Your task to perform on an android device: Search for "apple airpods pro" on target, select the first entry, add it to the cart, then select checkout. Image 0: 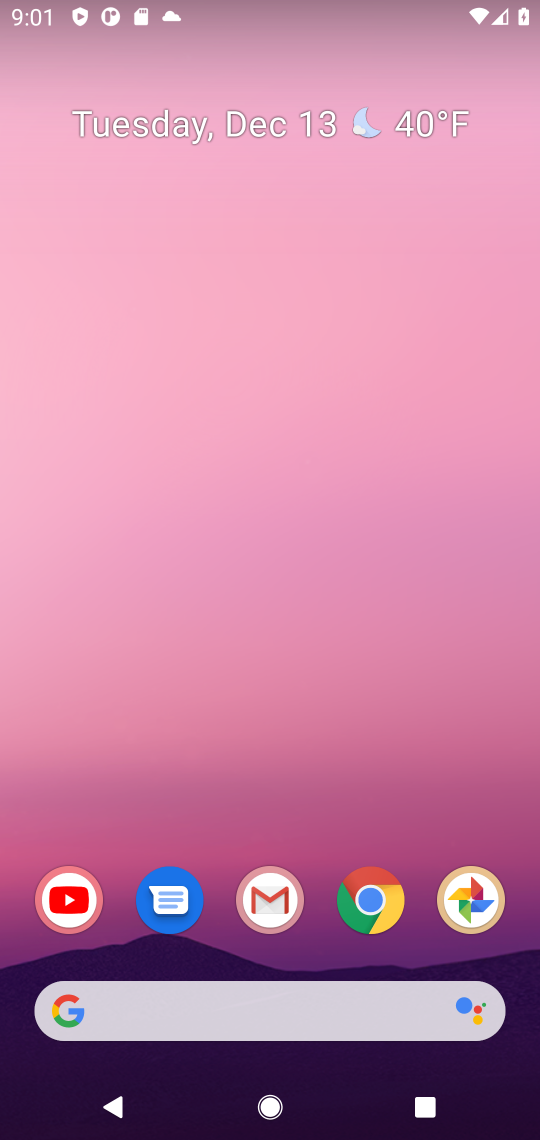
Step 0: click (381, 897)
Your task to perform on an android device: Search for "apple airpods pro" on target, select the first entry, add it to the cart, then select checkout. Image 1: 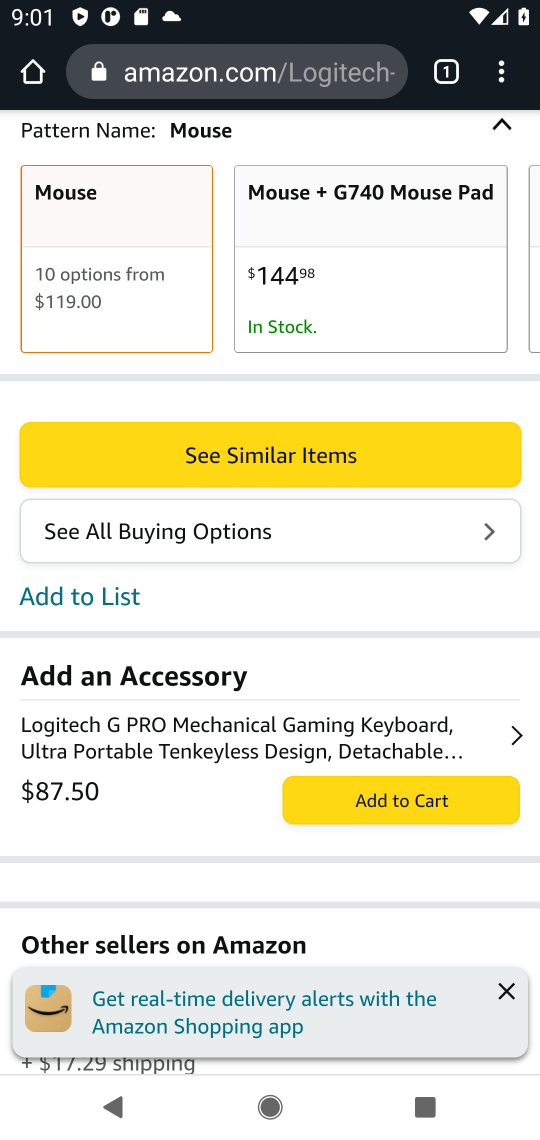
Step 1: click (285, 75)
Your task to perform on an android device: Search for "apple airpods pro" on target, select the first entry, add it to the cart, then select checkout. Image 2: 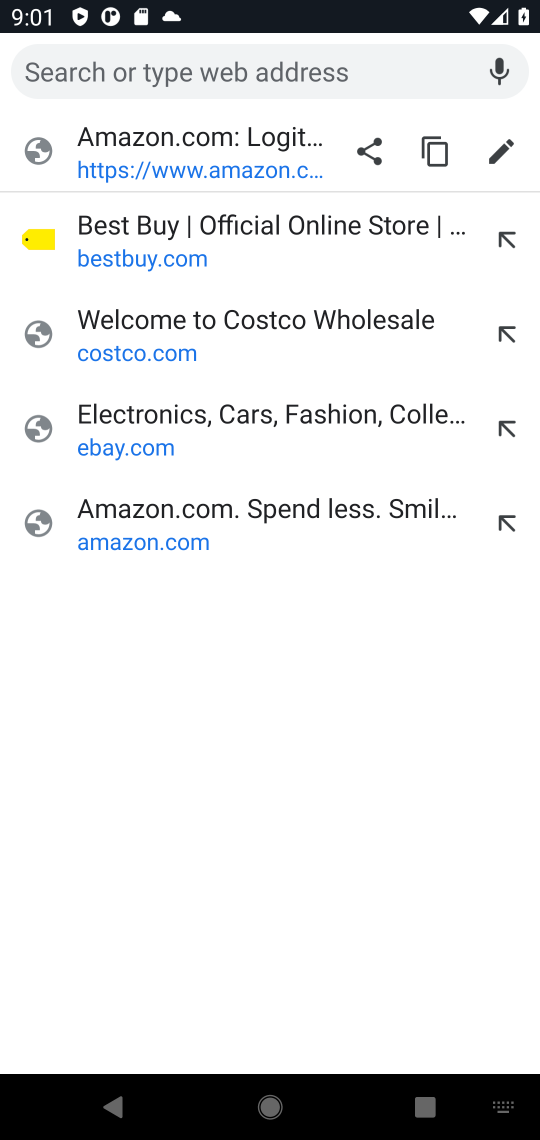
Step 2: type "TARGET"
Your task to perform on an android device: Search for "apple airpods pro" on target, select the first entry, add it to the cart, then select checkout. Image 3: 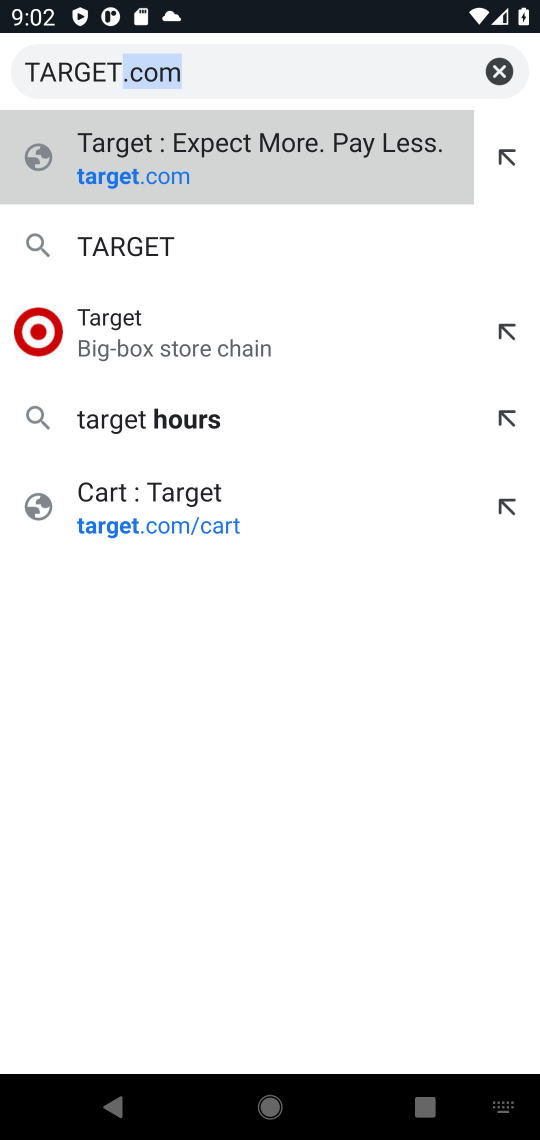
Step 3: click (142, 166)
Your task to perform on an android device: Search for "apple airpods pro" on target, select the first entry, add it to the cart, then select checkout. Image 4: 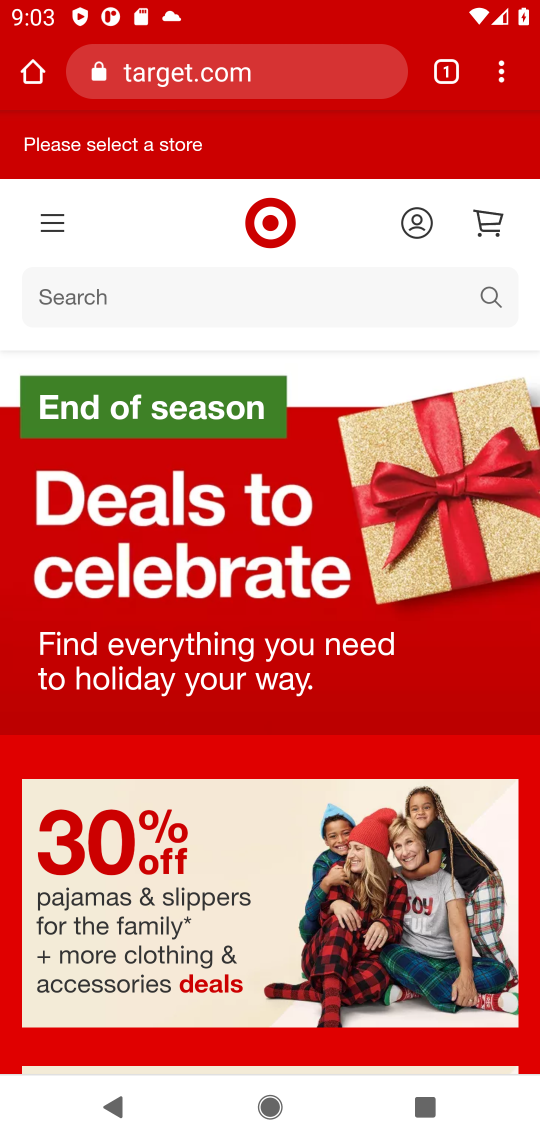
Step 4: click (249, 281)
Your task to perform on an android device: Search for "apple airpods pro" on target, select the first entry, add it to the cart, then select checkout. Image 5: 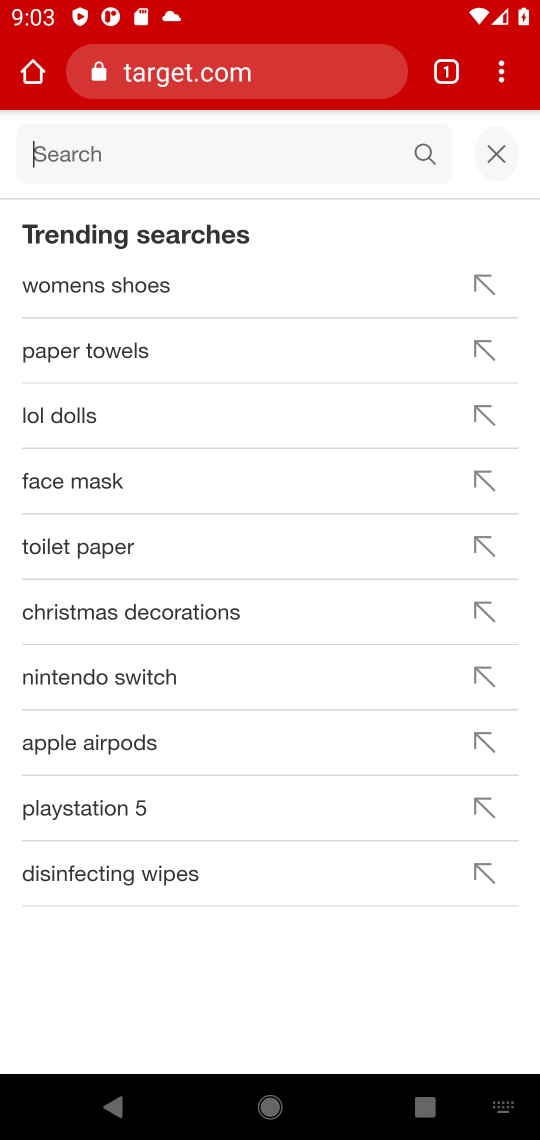
Step 5: type "APPLE AIRPODS"
Your task to perform on an android device: Search for "apple airpods pro" on target, select the first entry, add it to the cart, then select checkout. Image 6: 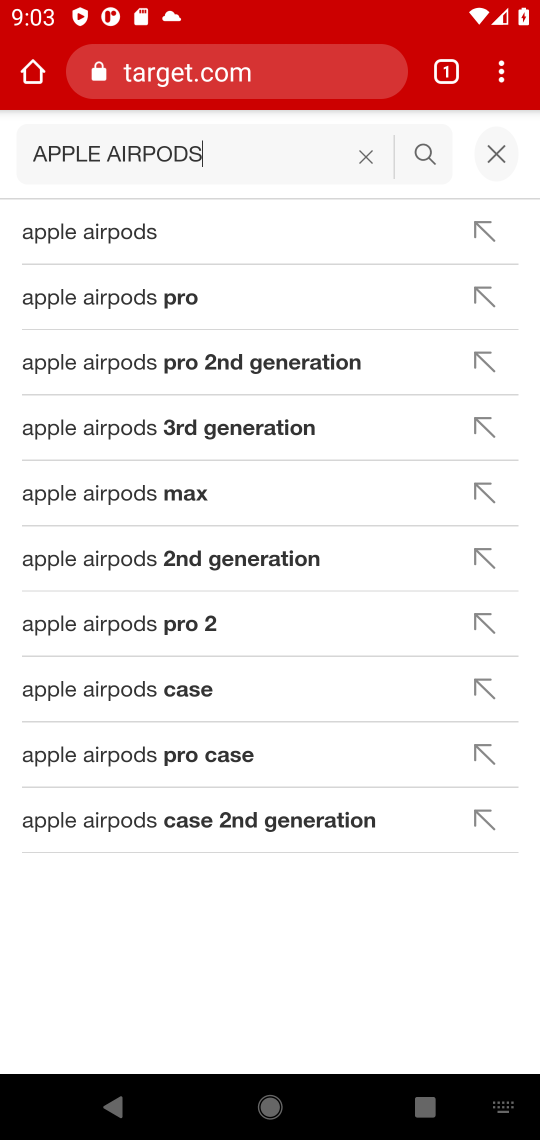
Step 6: click (111, 233)
Your task to perform on an android device: Search for "apple airpods pro" on target, select the first entry, add it to the cart, then select checkout. Image 7: 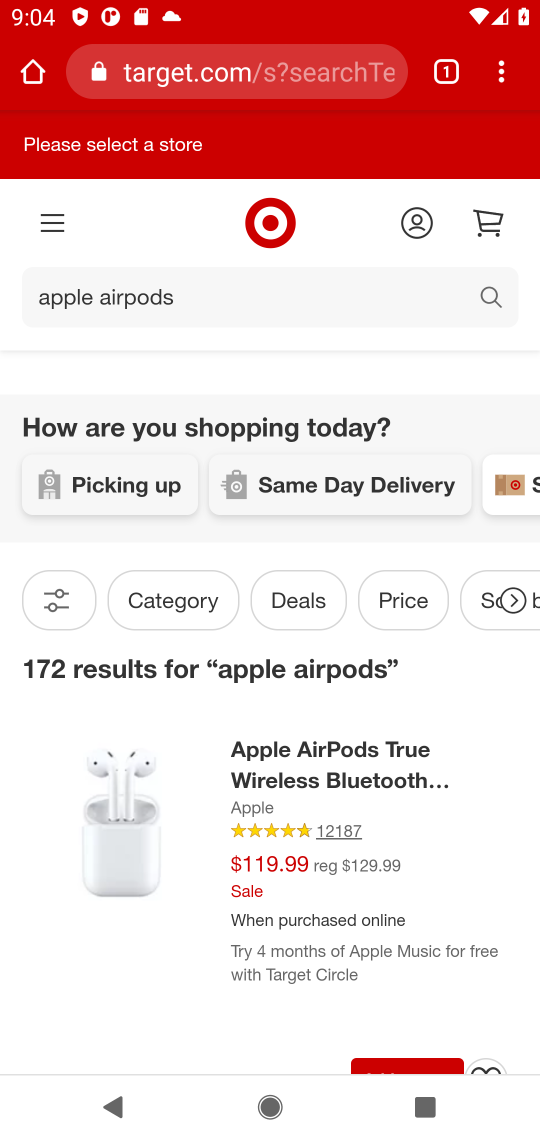
Step 7: click (433, 795)
Your task to perform on an android device: Search for "apple airpods pro" on target, select the first entry, add it to the cart, then select checkout. Image 8: 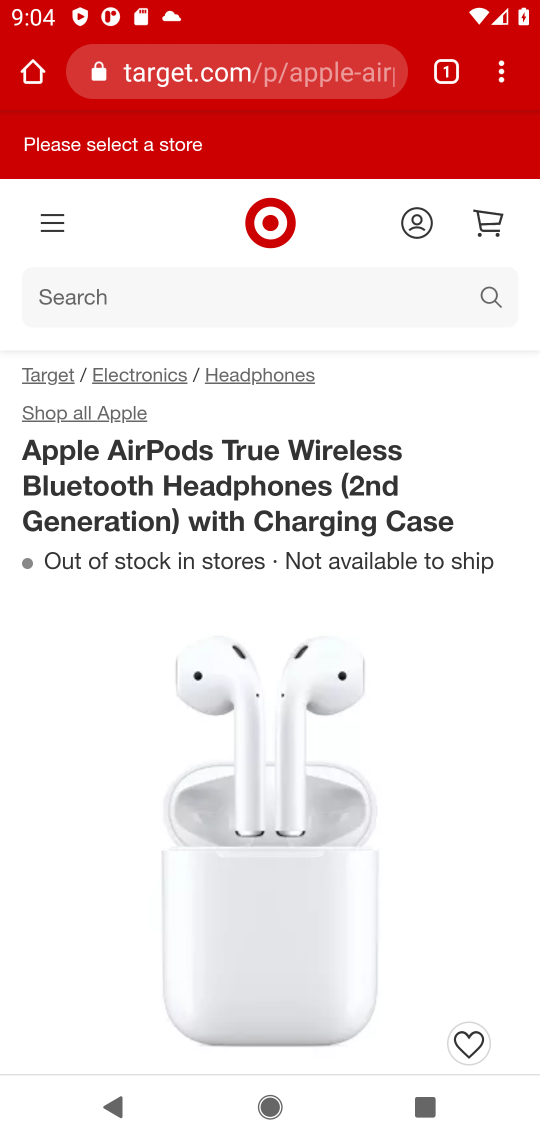
Step 8: drag from (393, 844) to (338, 104)
Your task to perform on an android device: Search for "apple airpods pro" on target, select the first entry, add it to the cart, then select checkout. Image 9: 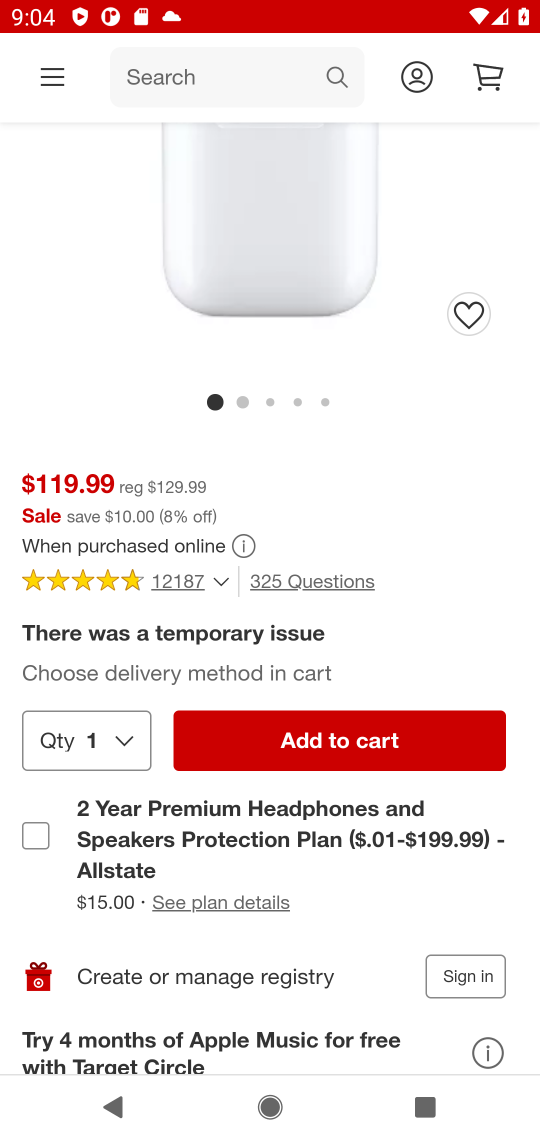
Step 9: click (344, 739)
Your task to perform on an android device: Search for "apple airpods pro" on target, select the first entry, add it to the cart, then select checkout. Image 10: 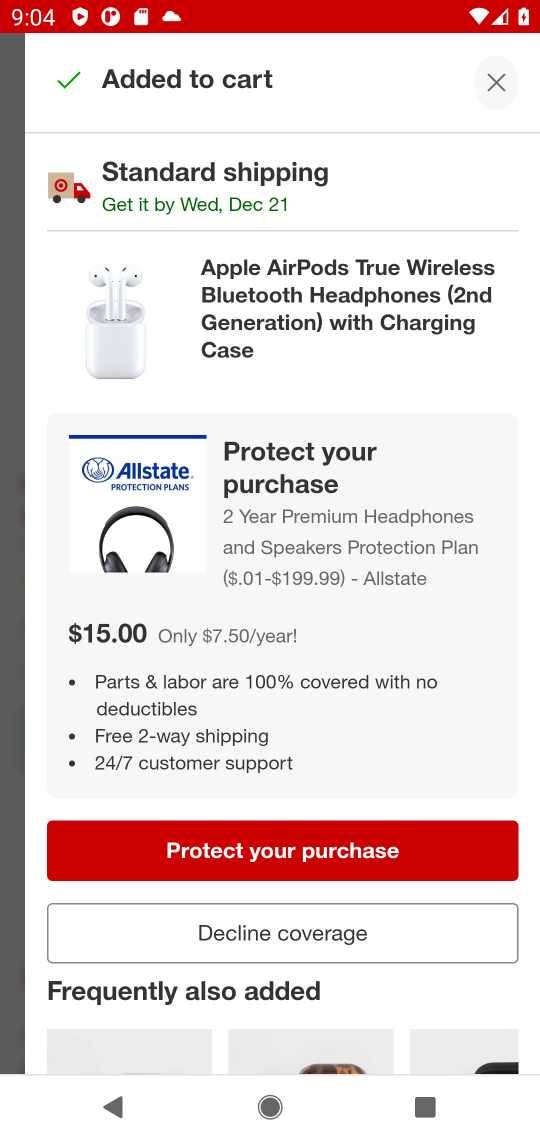
Step 10: click (296, 924)
Your task to perform on an android device: Search for "apple airpods pro" on target, select the first entry, add it to the cart, then select checkout. Image 11: 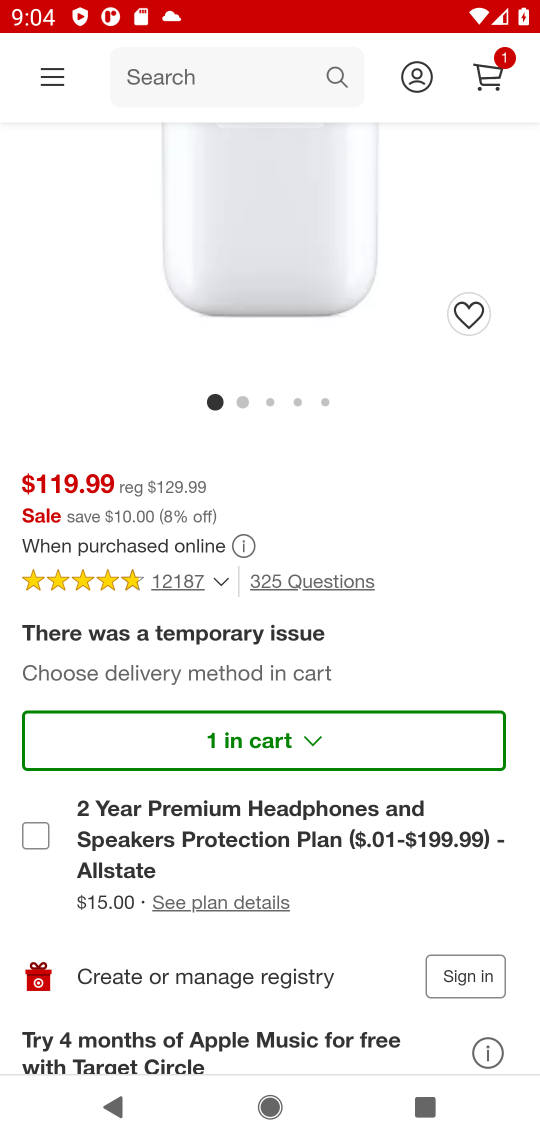
Step 11: click (481, 68)
Your task to perform on an android device: Search for "apple airpods pro" on target, select the first entry, add it to the cart, then select checkout. Image 12: 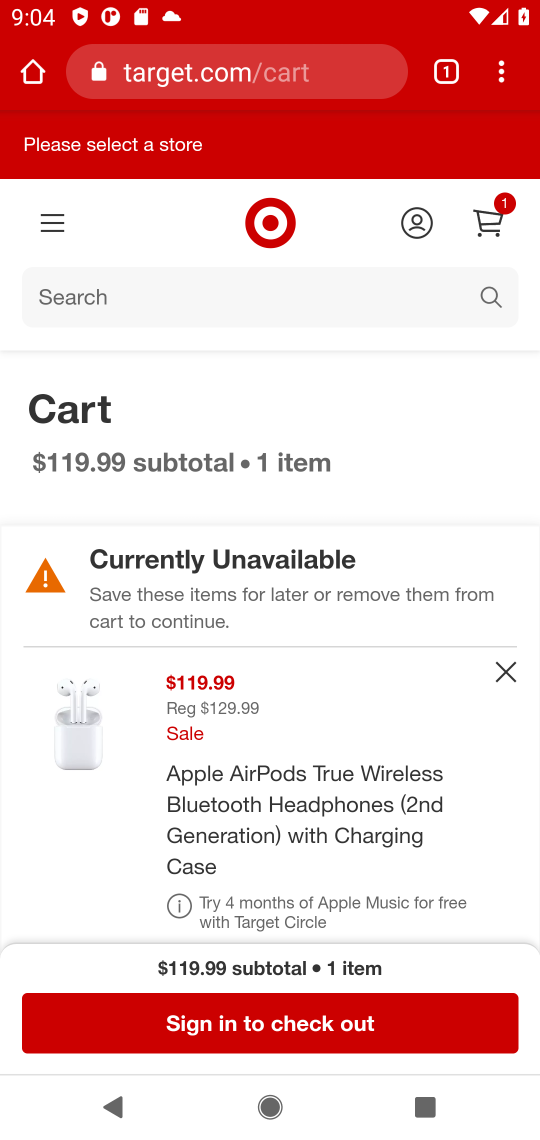
Step 12: click (320, 1025)
Your task to perform on an android device: Search for "apple airpods pro" on target, select the first entry, add it to the cart, then select checkout. Image 13: 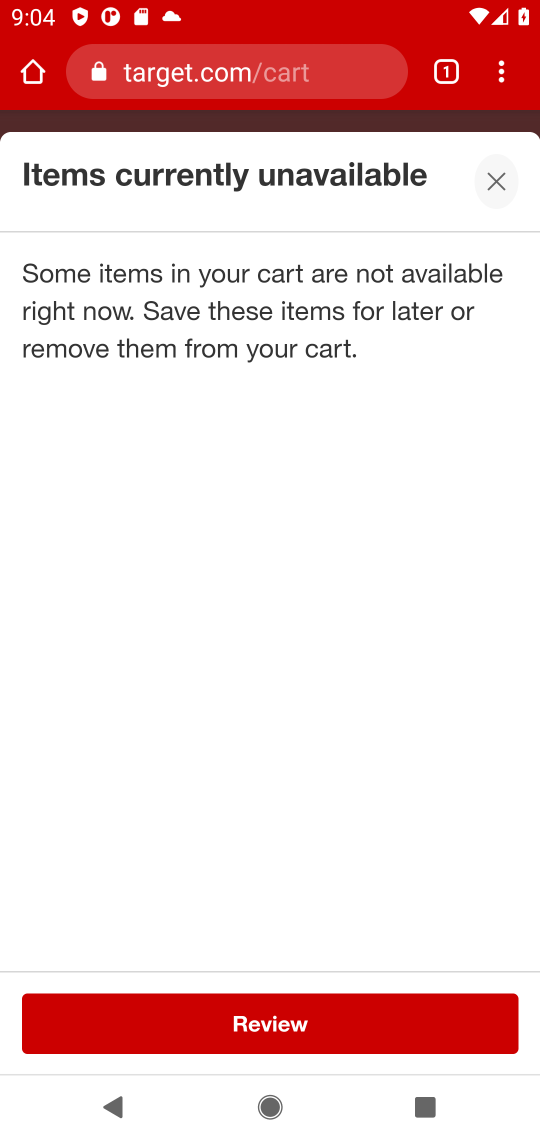
Step 13: task complete